Your task to perform on an android device: delete a single message in the gmail app Image 0: 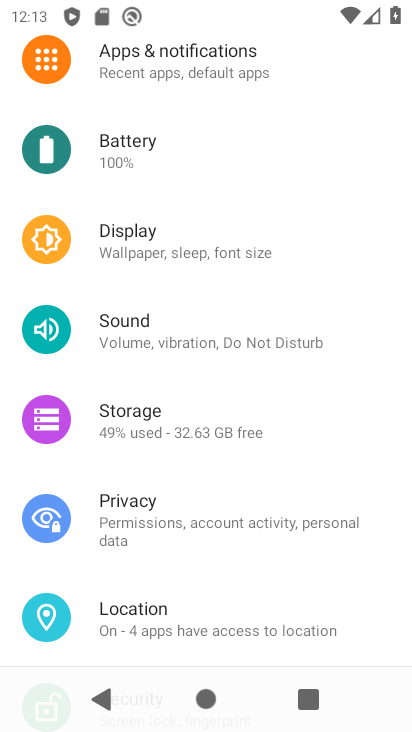
Step 0: press home button
Your task to perform on an android device: delete a single message in the gmail app Image 1: 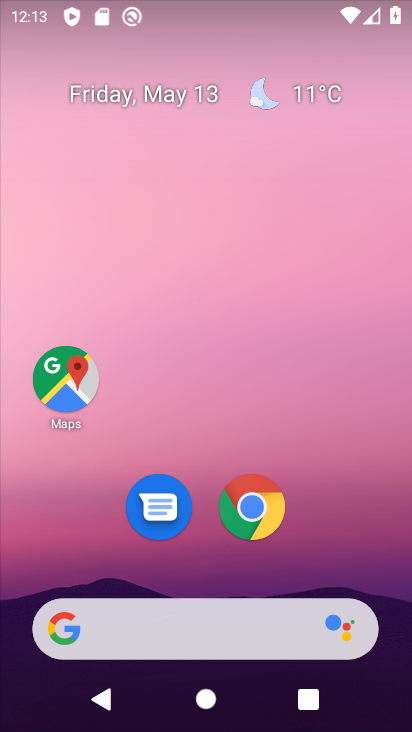
Step 1: drag from (207, 583) to (206, 18)
Your task to perform on an android device: delete a single message in the gmail app Image 2: 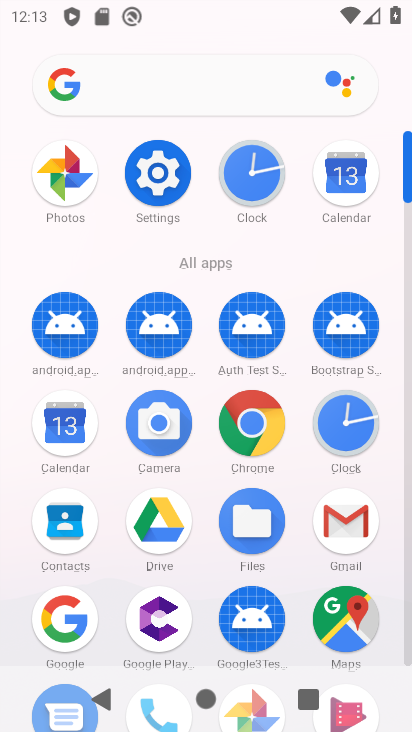
Step 2: click (360, 528)
Your task to perform on an android device: delete a single message in the gmail app Image 3: 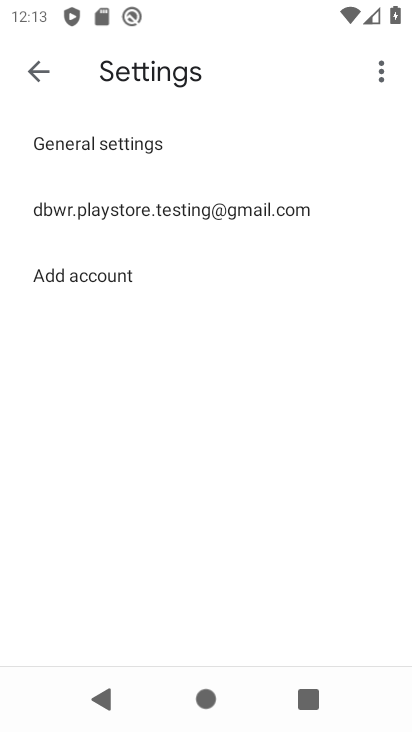
Step 3: click (27, 48)
Your task to perform on an android device: delete a single message in the gmail app Image 4: 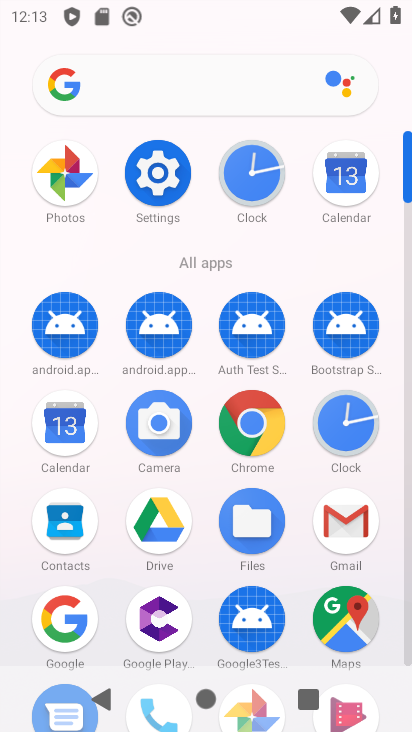
Step 4: click (362, 546)
Your task to perform on an android device: delete a single message in the gmail app Image 5: 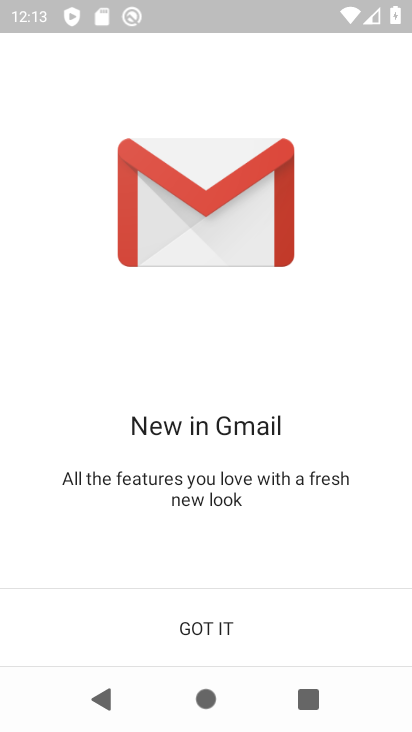
Step 5: drag from (244, 276) to (219, 553)
Your task to perform on an android device: delete a single message in the gmail app Image 6: 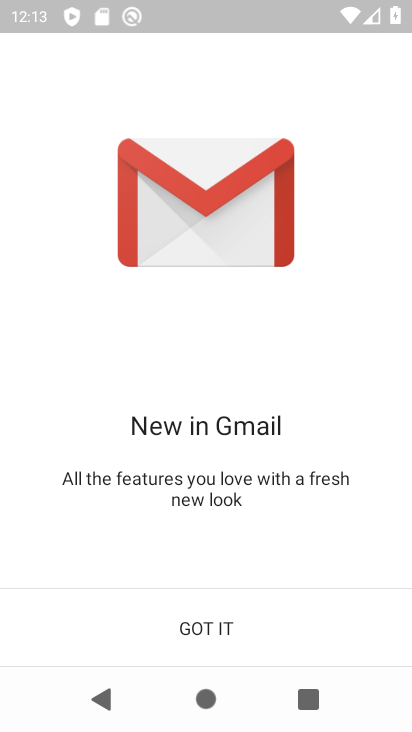
Step 6: click (206, 612)
Your task to perform on an android device: delete a single message in the gmail app Image 7: 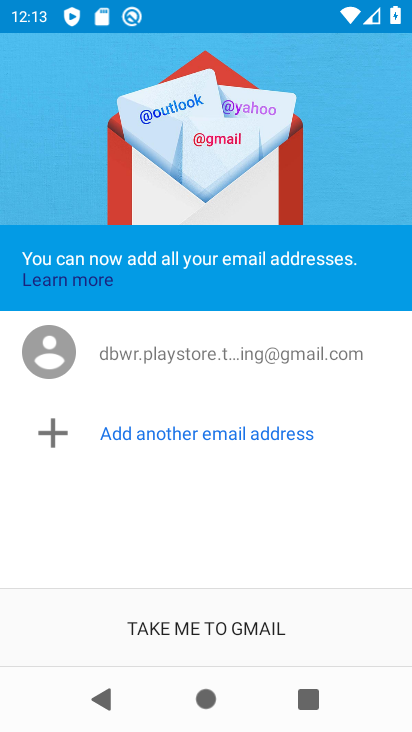
Step 7: drag from (200, 305) to (228, 567)
Your task to perform on an android device: delete a single message in the gmail app Image 8: 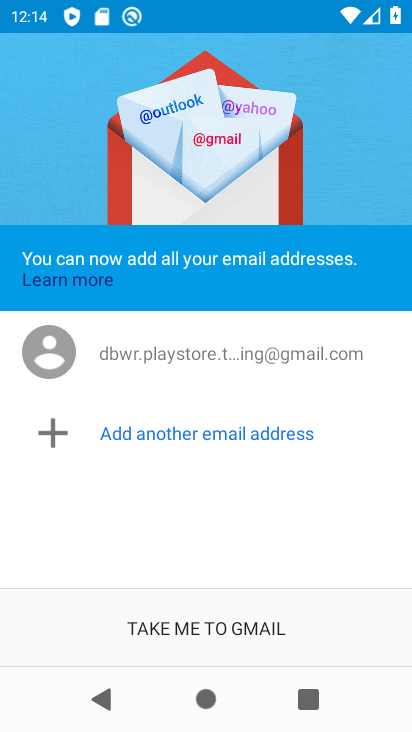
Step 8: click (196, 609)
Your task to perform on an android device: delete a single message in the gmail app Image 9: 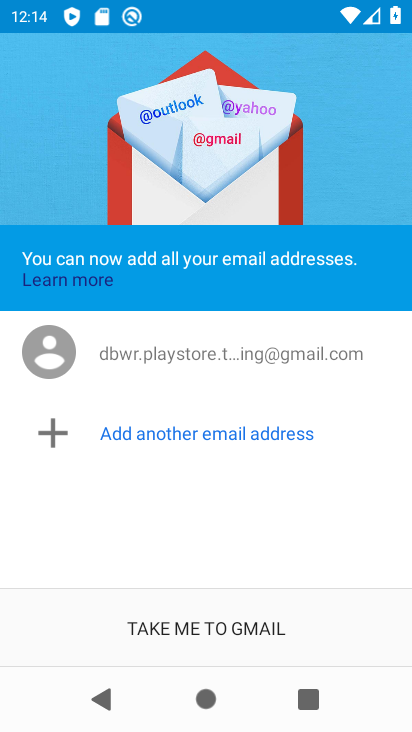
Step 9: task complete